Your task to perform on an android device: When is my next meeting? Image 0: 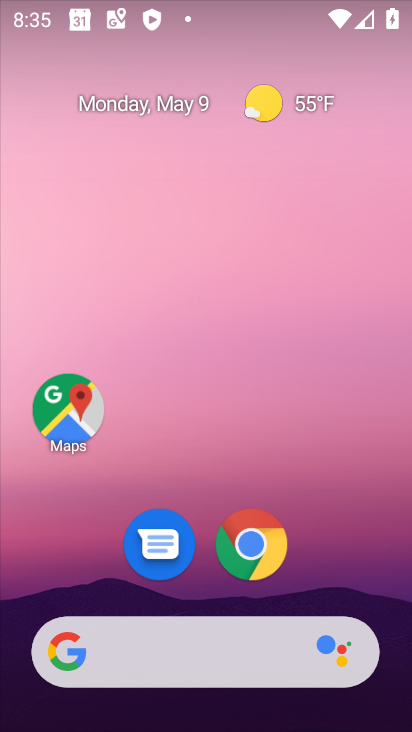
Step 0: drag from (202, 579) to (202, 106)
Your task to perform on an android device: When is my next meeting? Image 1: 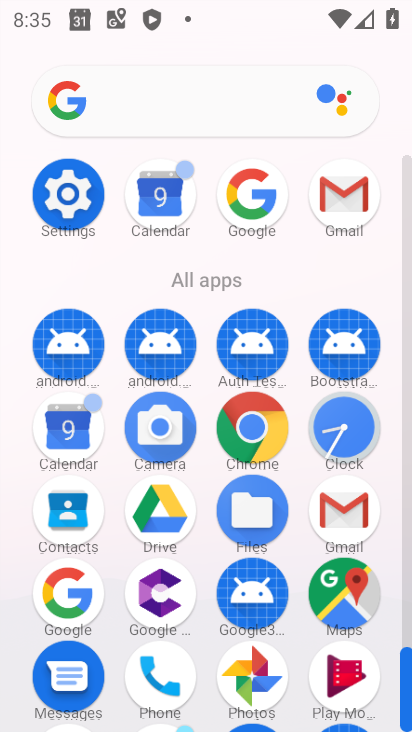
Step 1: click (68, 447)
Your task to perform on an android device: When is my next meeting? Image 2: 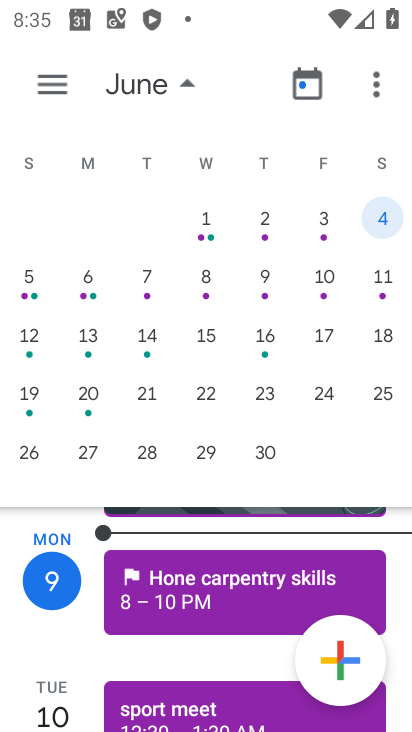
Step 2: drag from (215, 550) to (276, 184)
Your task to perform on an android device: When is my next meeting? Image 3: 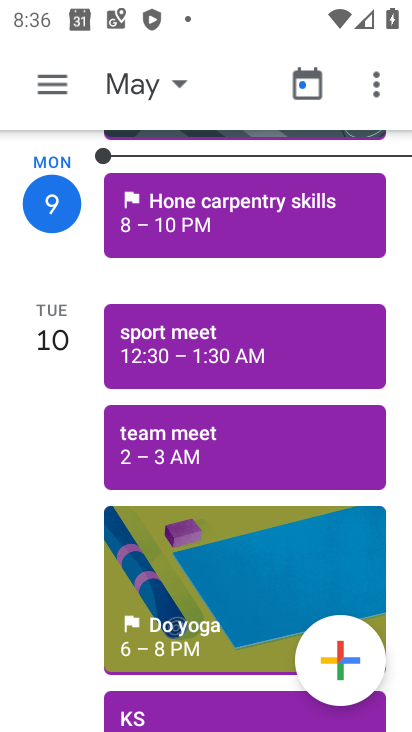
Step 3: click (263, 442)
Your task to perform on an android device: When is my next meeting? Image 4: 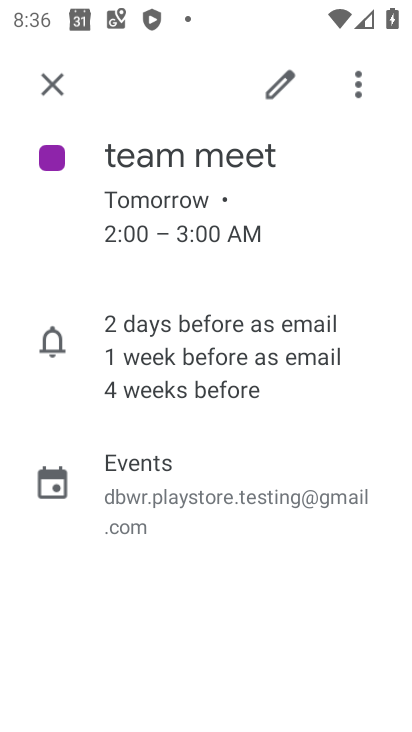
Step 4: task complete